Your task to perform on an android device: Go to wifi settings Image 0: 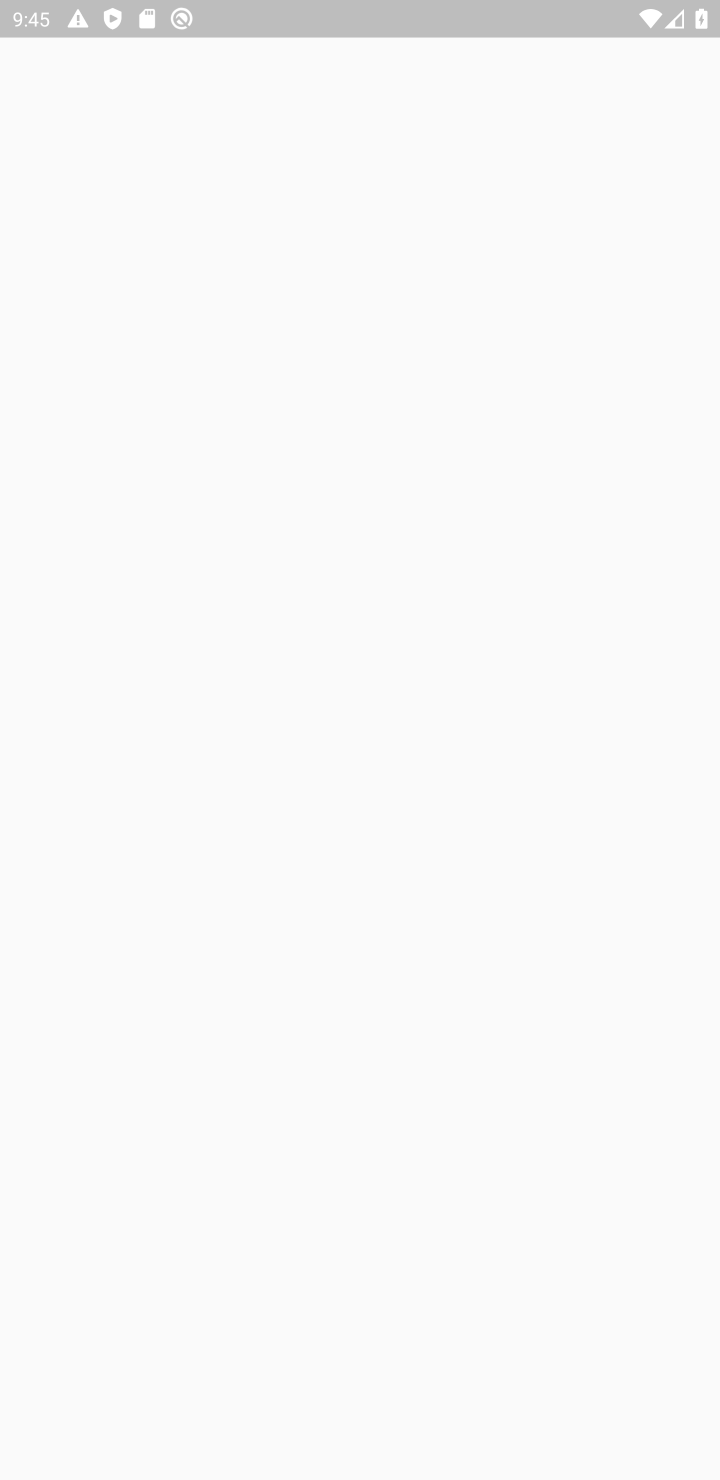
Step 0: press home button
Your task to perform on an android device: Go to wifi settings Image 1: 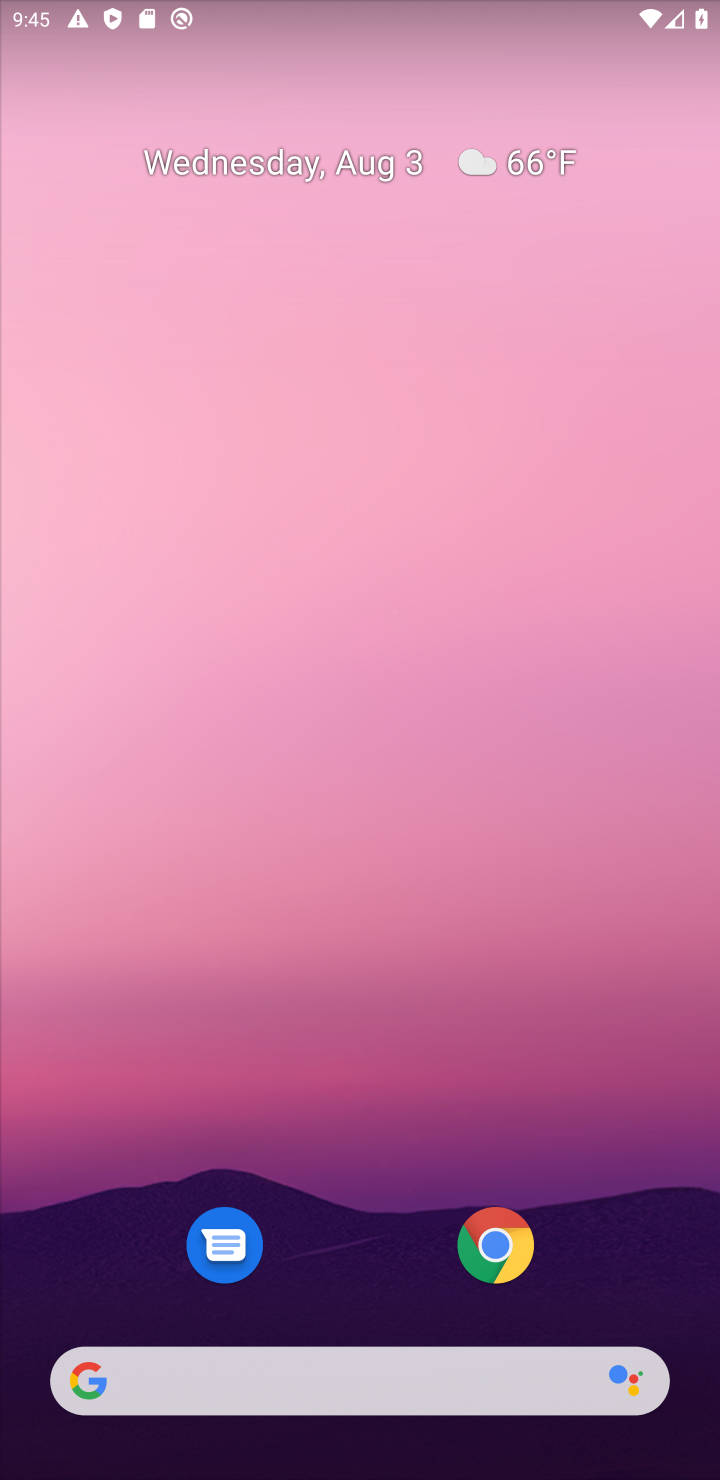
Step 1: drag from (658, 1246) to (534, 176)
Your task to perform on an android device: Go to wifi settings Image 2: 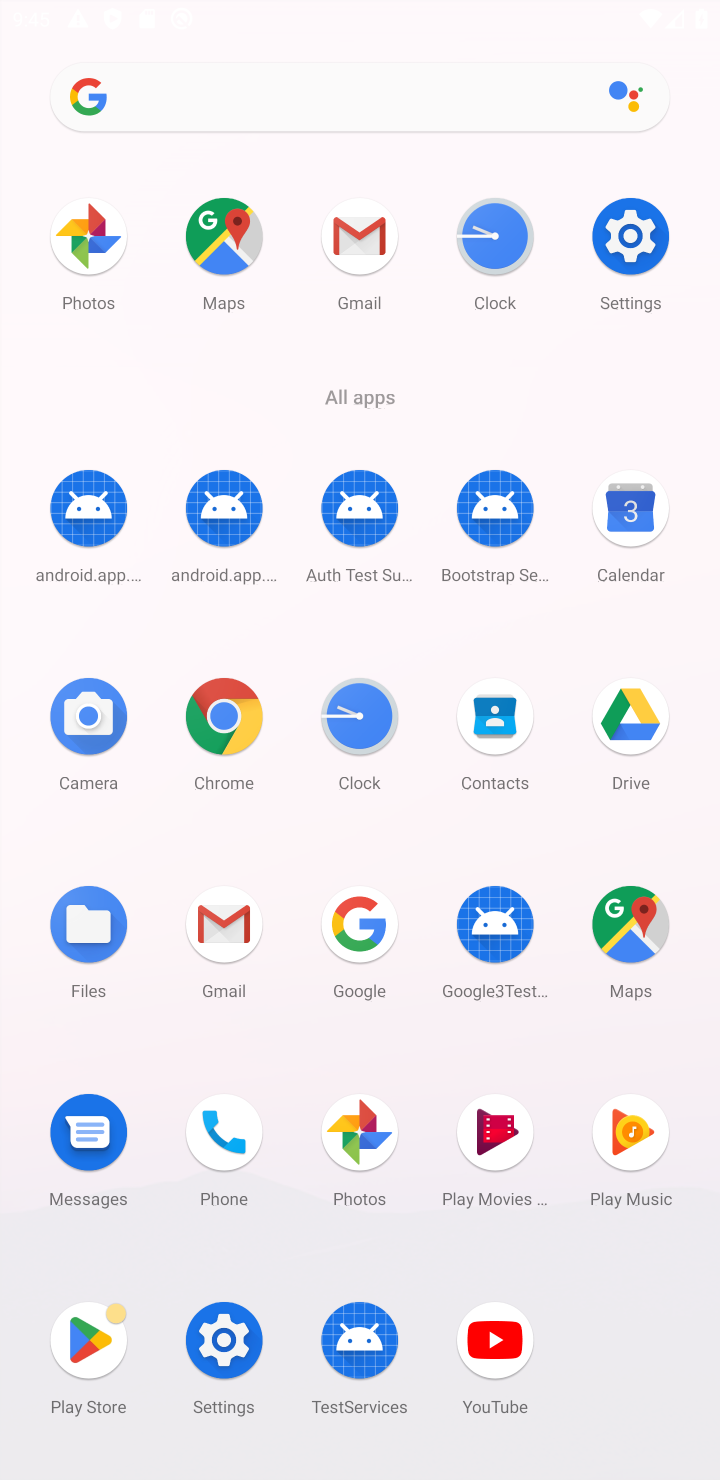
Step 2: click (634, 222)
Your task to perform on an android device: Go to wifi settings Image 3: 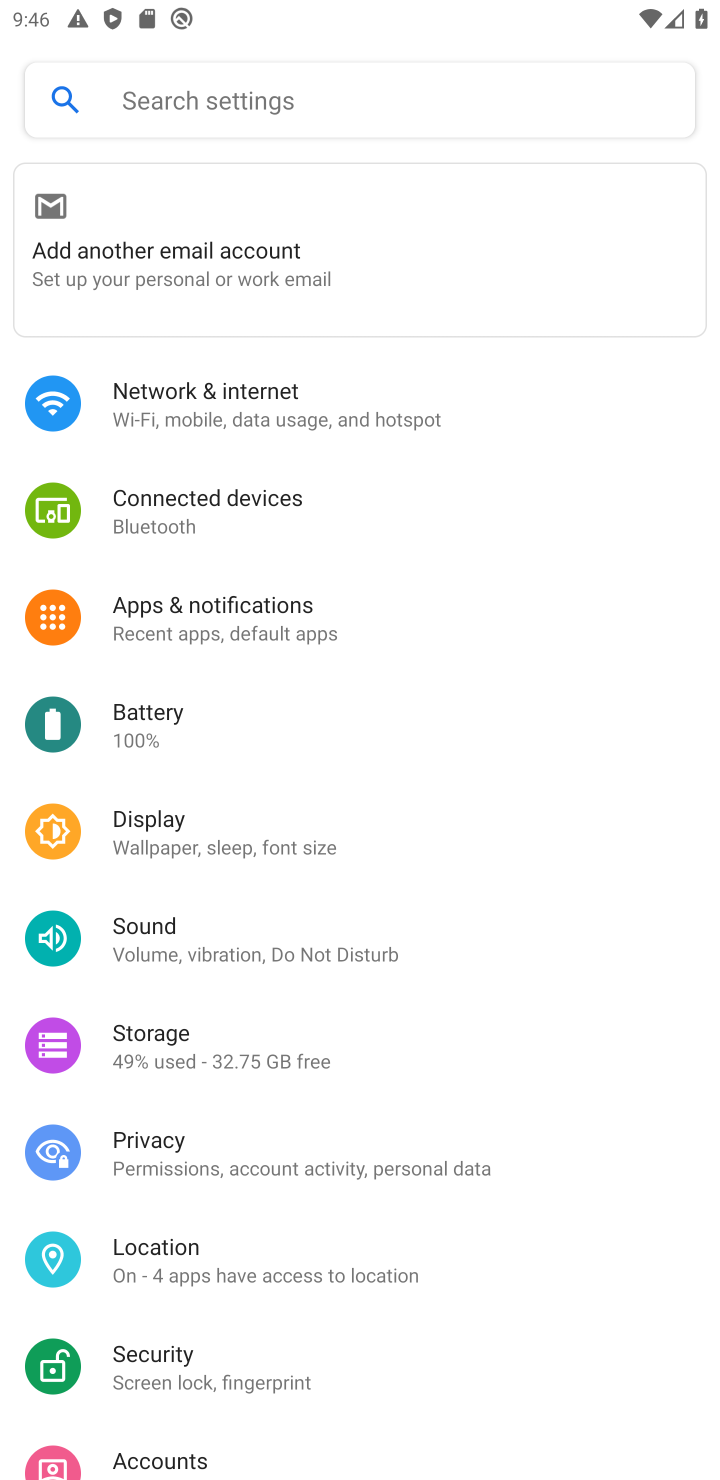
Step 3: click (110, 421)
Your task to perform on an android device: Go to wifi settings Image 4: 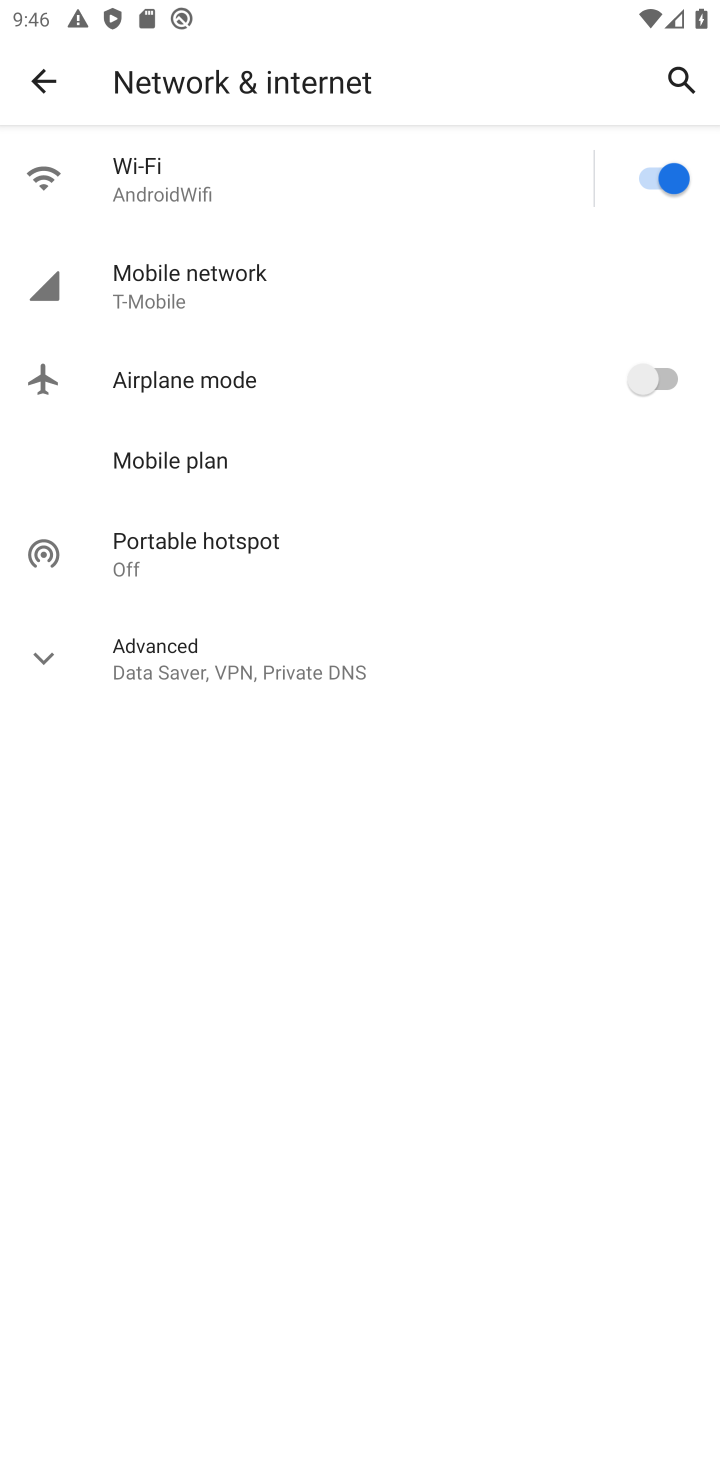
Step 4: click (351, 199)
Your task to perform on an android device: Go to wifi settings Image 5: 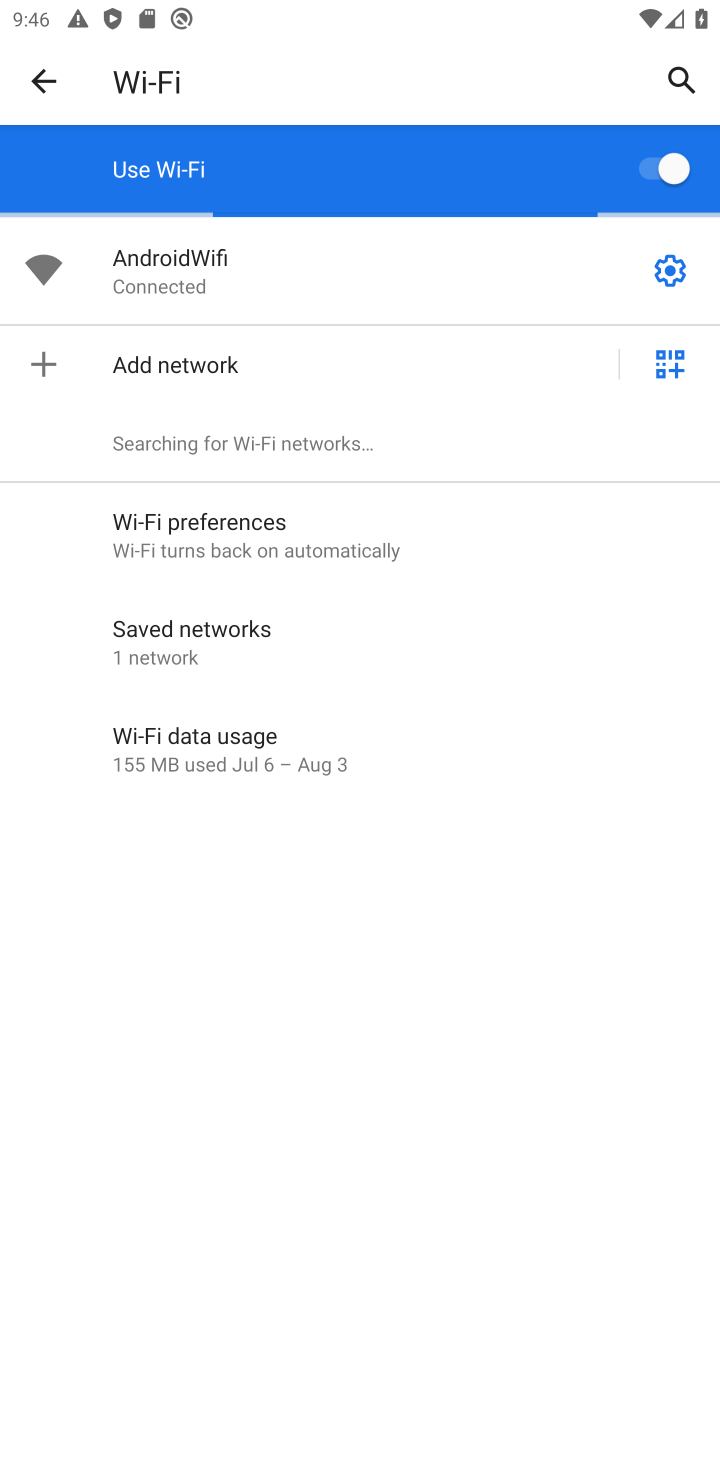
Step 5: task complete